Your task to perform on an android device: What is the news today? Image 0: 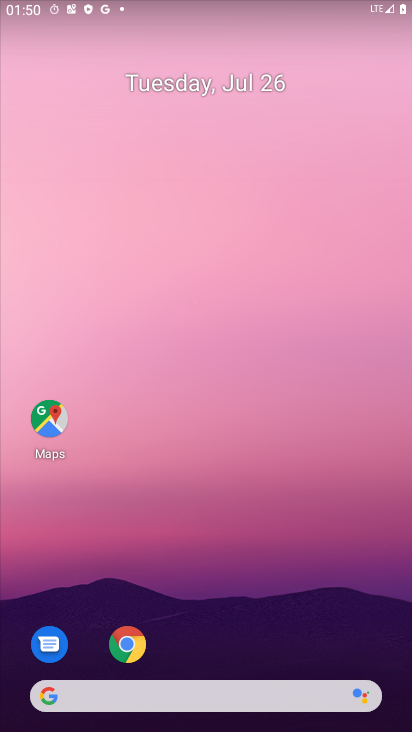
Step 0: click (91, 691)
Your task to perform on an android device: What is the news today? Image 1: 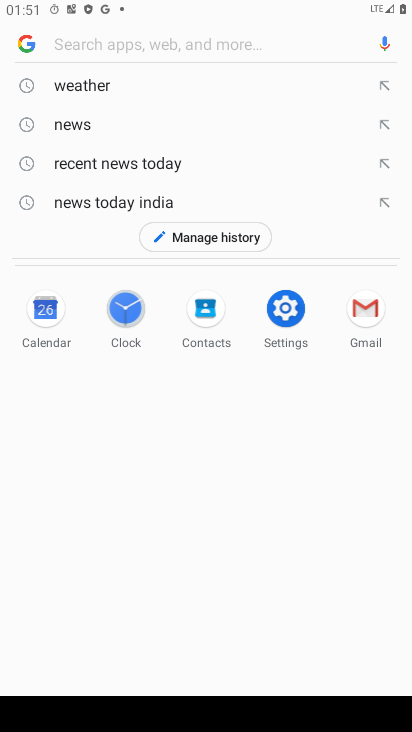
Step 1: type "news today"
Your task to perform on an android device: What is the news today? Image 2: 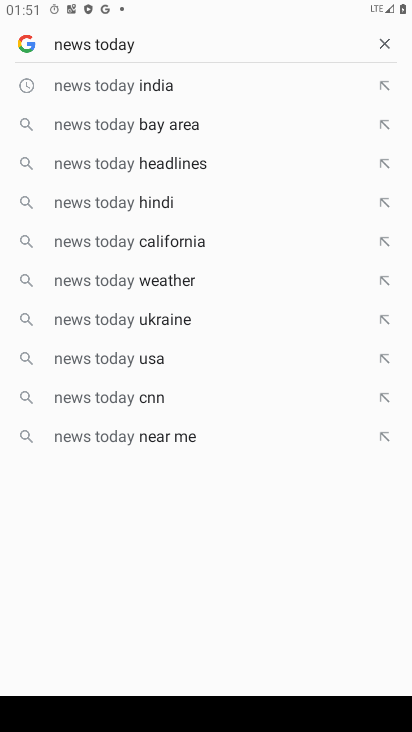
Step 2: click (135, 91)
Your task to perform on an android device: What is the news today? Image 3: 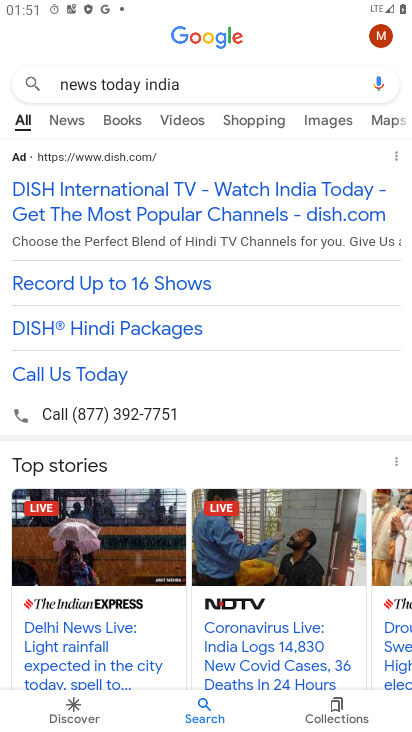
Step 3: click (52, 119)
Your task to perform on an android device: What is the news today? Image 4: 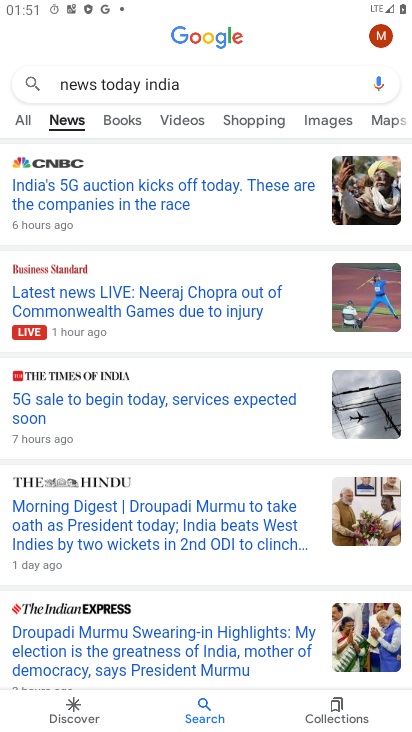
Step 4: click (189, 205)
Your task to perform on an android device: What is the news today? Image 5: 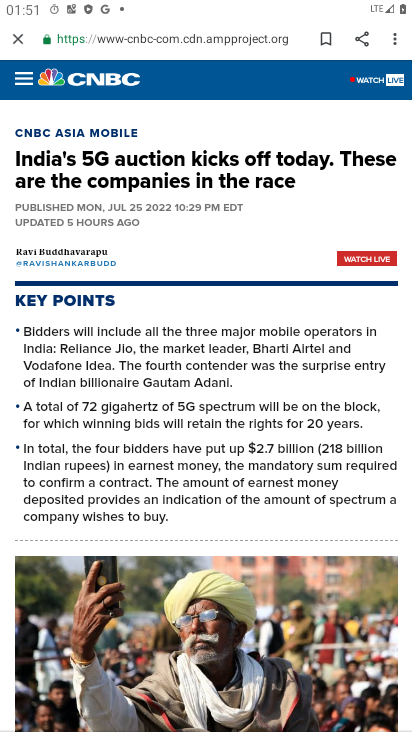
Step 5: task complete